Your task to perform on an android device: Open internet settings Image 0: 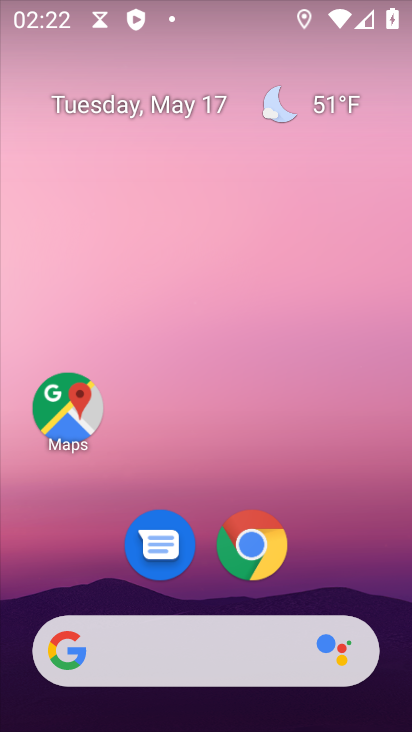
Step 0: drag from (211, 515) to (279, 75)
Your task to perform on an android device: Open internet settings Image 1: 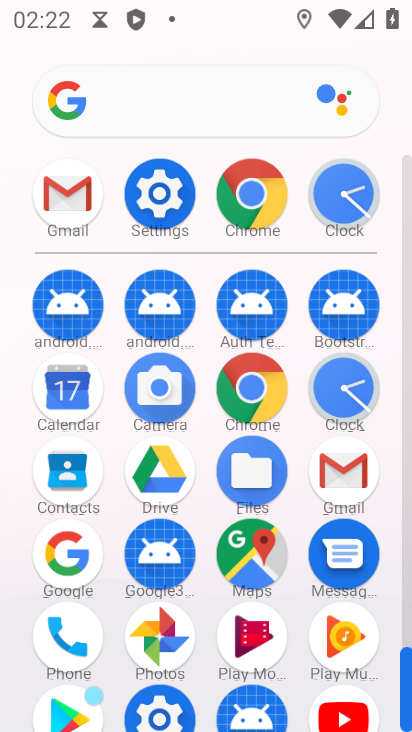
Step 1: click (167, 195)
Your task to perform on an android device: Open internet settings Image 2: 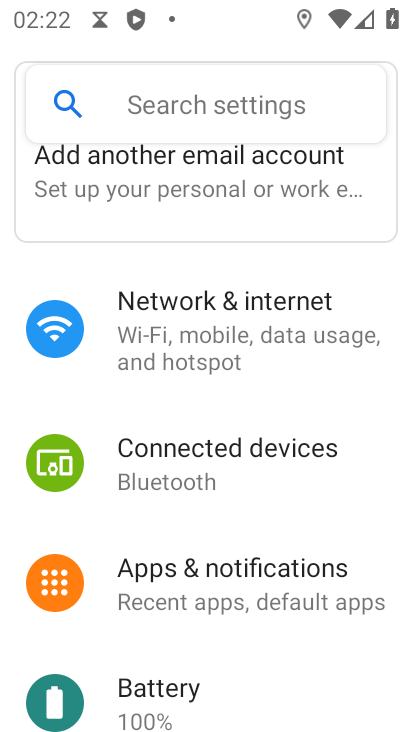
Step 2: click (247, 317)
Your task to perform on an android device: Open internet settings Image 3: 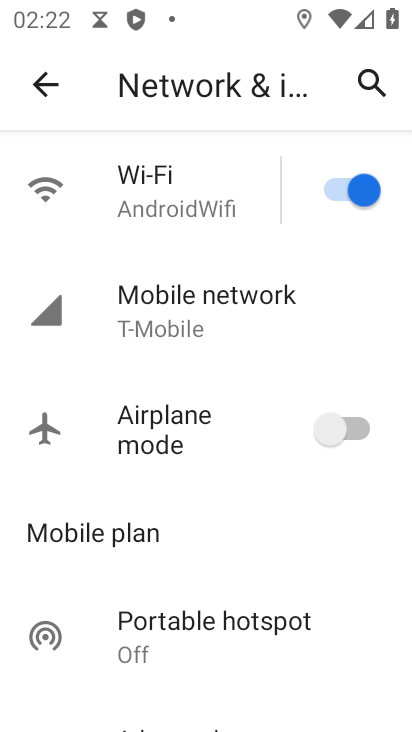
Step 3: task complete